Your task to perform on an android device: Clear all items from cart on amazon.com. Add corsair k70 to the cart on amazon.com, then select checkout. Image 0: 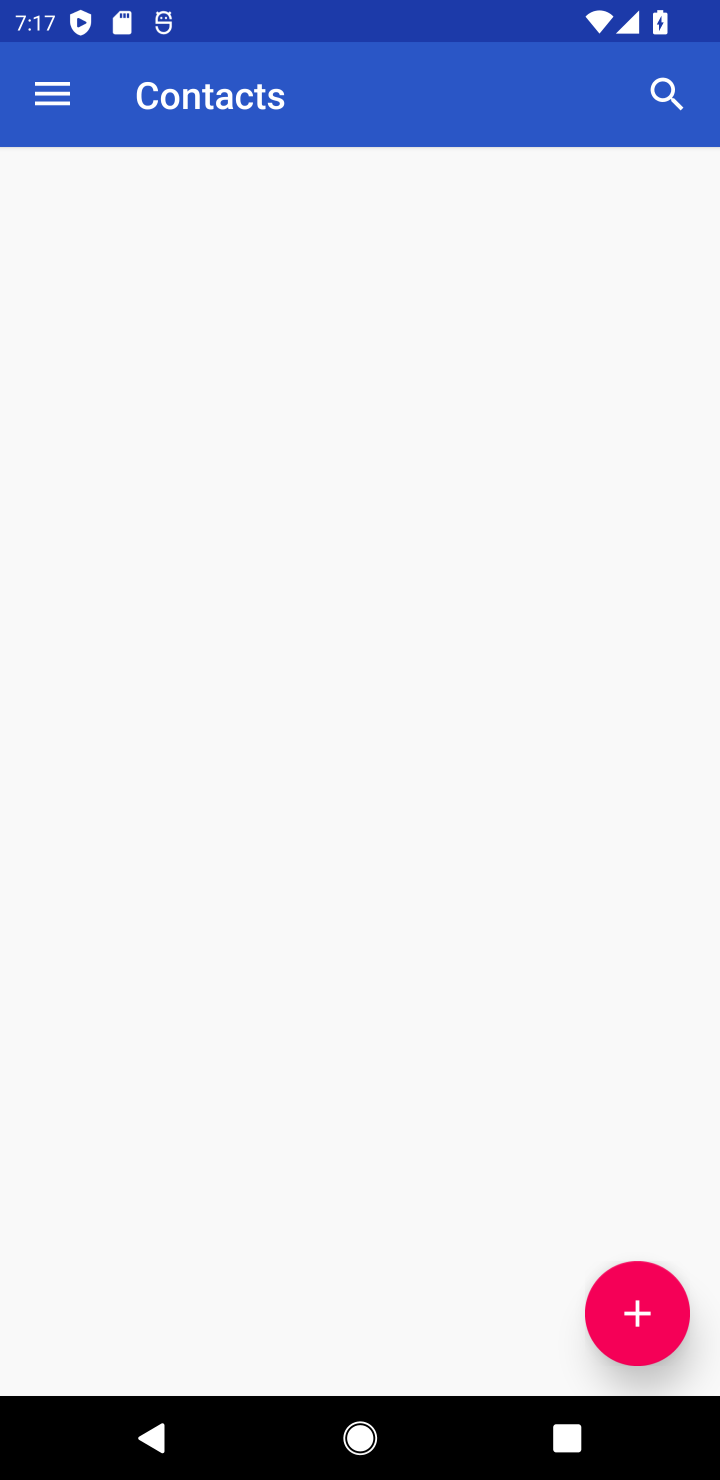
Step 0: press home button
Your task to perform on an android device: Clear all items from cart on amazon.com. Add corsair k70 to the cart on amazon.com, then select checkout. Image 1: 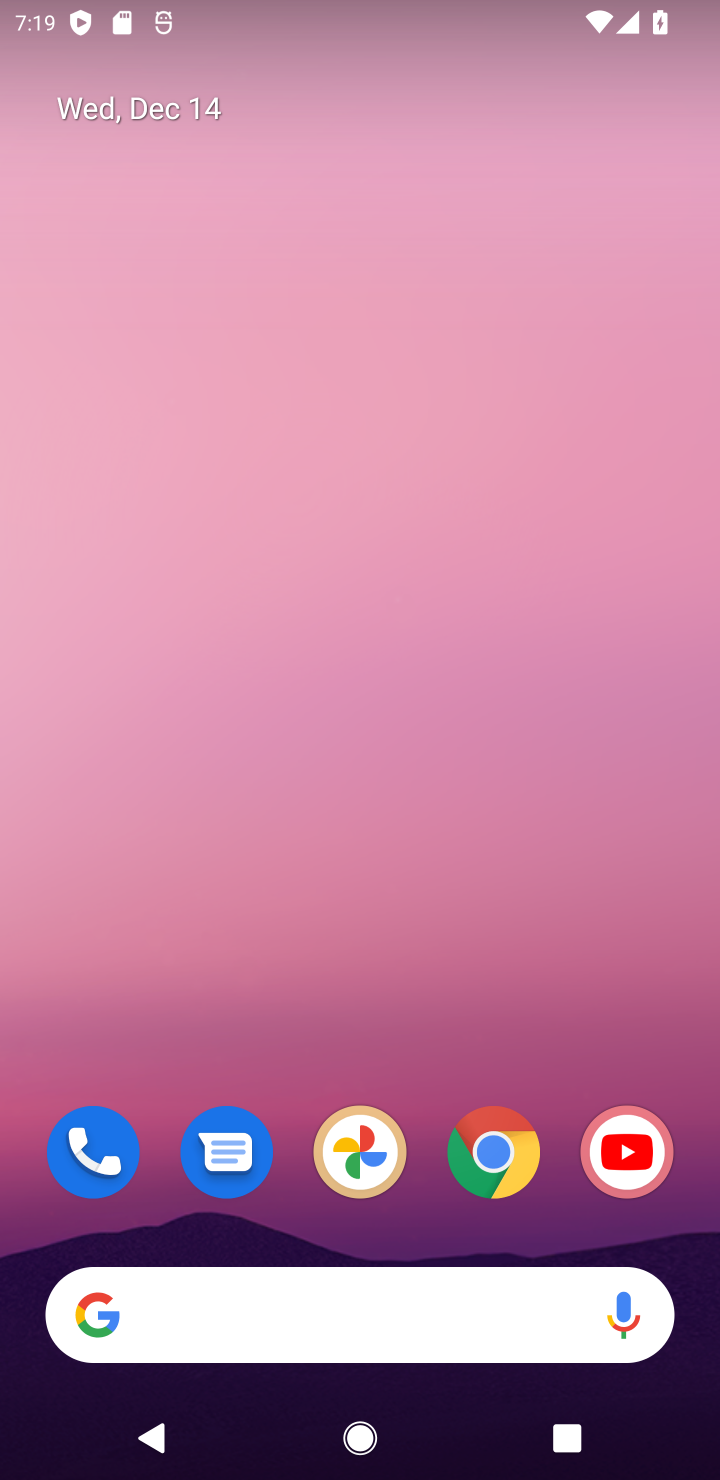
Step 1: click (494, 1171)
Your task to perform on an android device: Clear all items from cart on amazon.com. Add corsair k70 to the cart on amazon.com, then select checkout. Image 2: 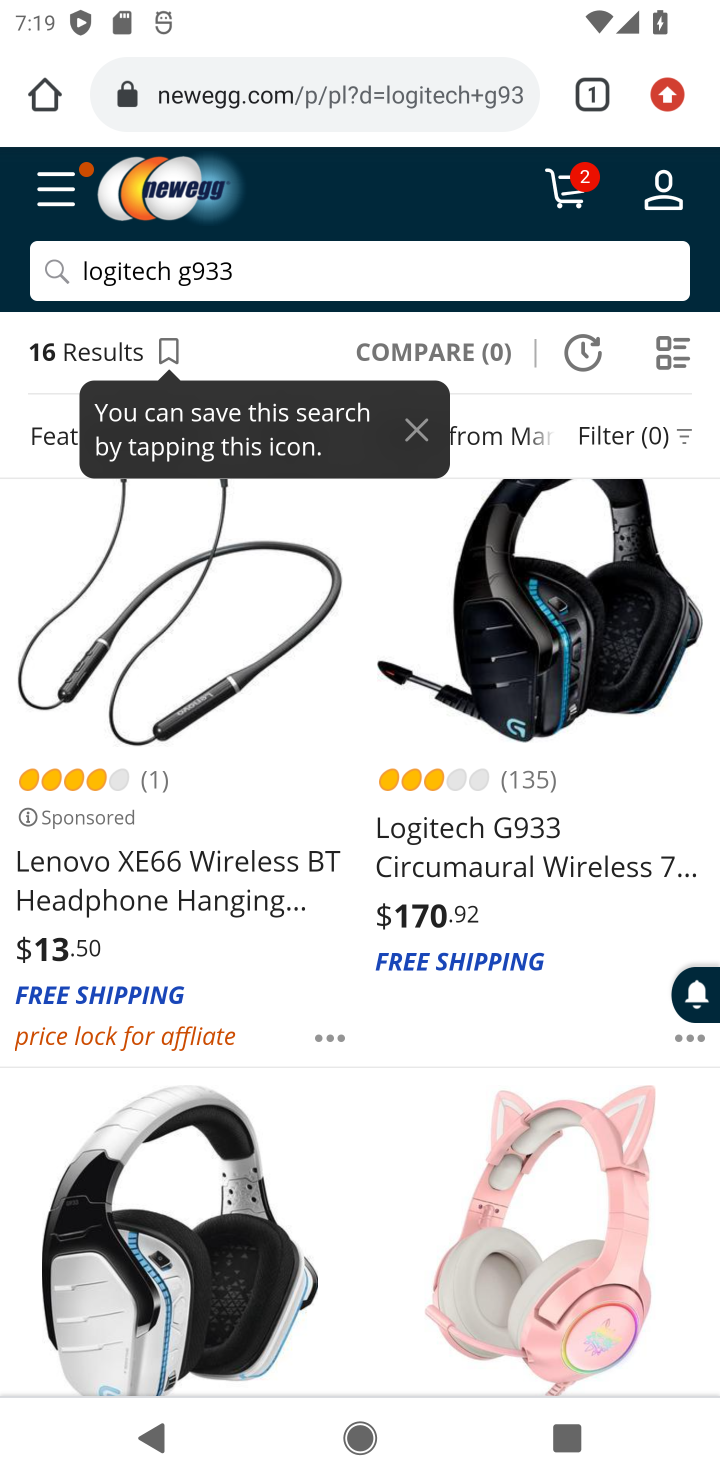
Step 2: click (291, 104)
Your task to perform on an android device: Clear all items from cart on amazon.com. Add corsair k70 to the cart on amazon.com, then select checkout. Image 3: 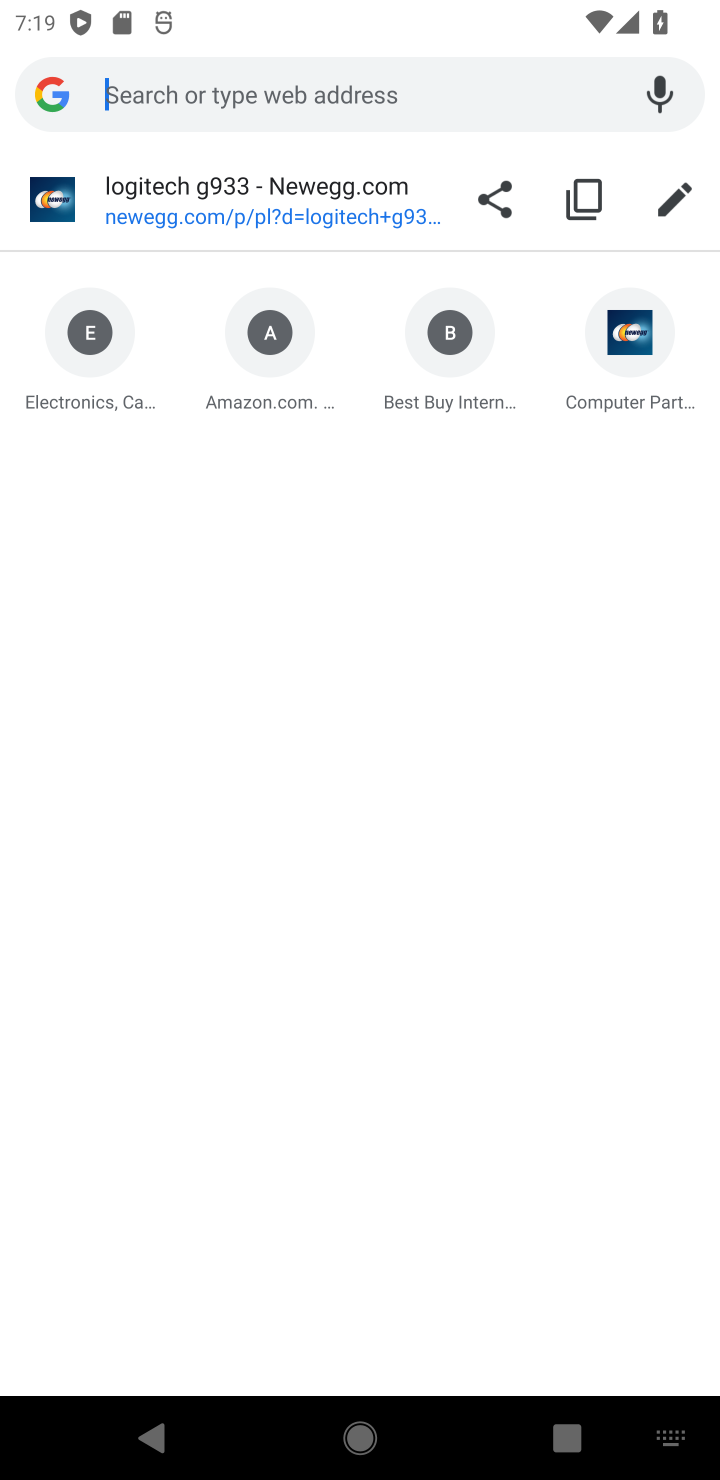
Step 3: click (280, 343)
Your task to perform on an android device: Clear all items from cart on amazon.com. Add corsair k70 to the cart on amazon.com, then select checkout. Image 4: 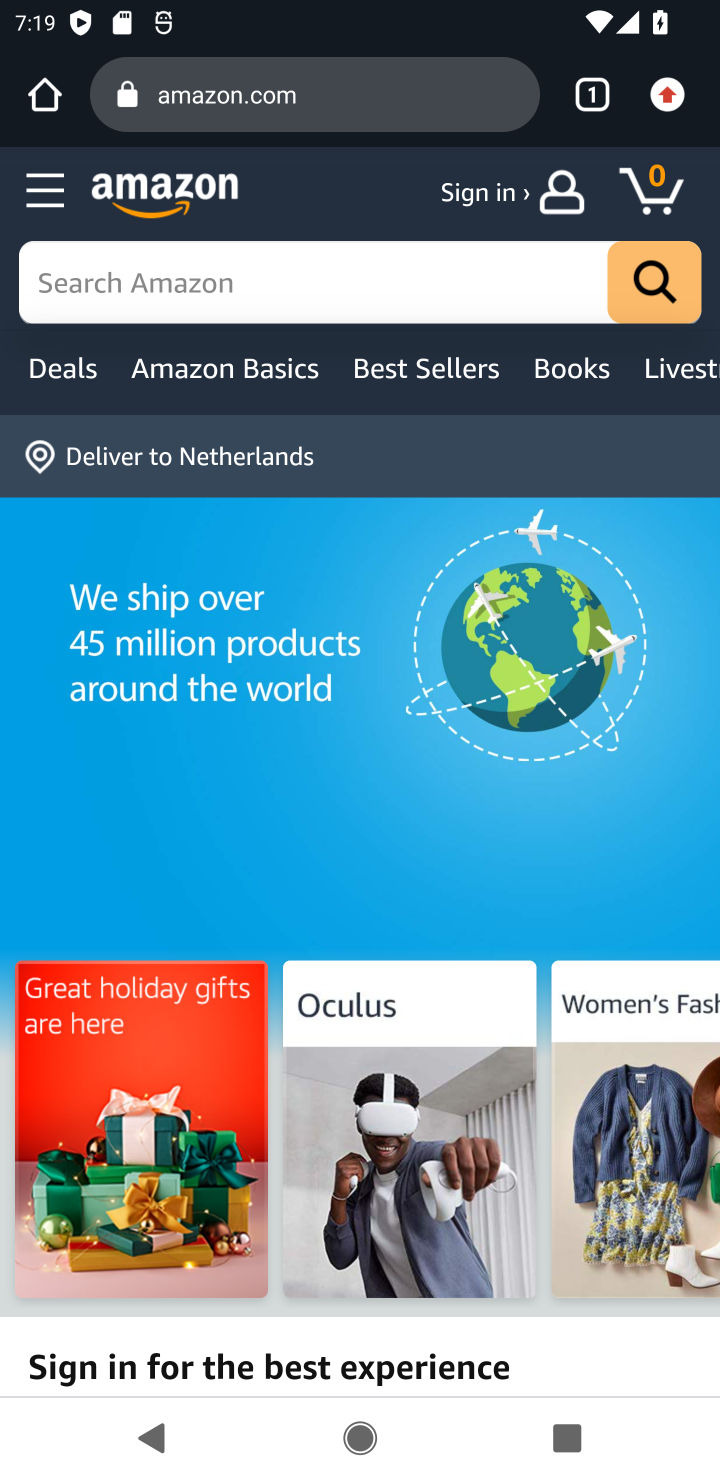
Step 4: click (658, 198)
Your task to perform on an android device: Clear all items from cart on amazon.com. Add corsair k70 to the cart on amazon.com, then select checkout. Image 5: 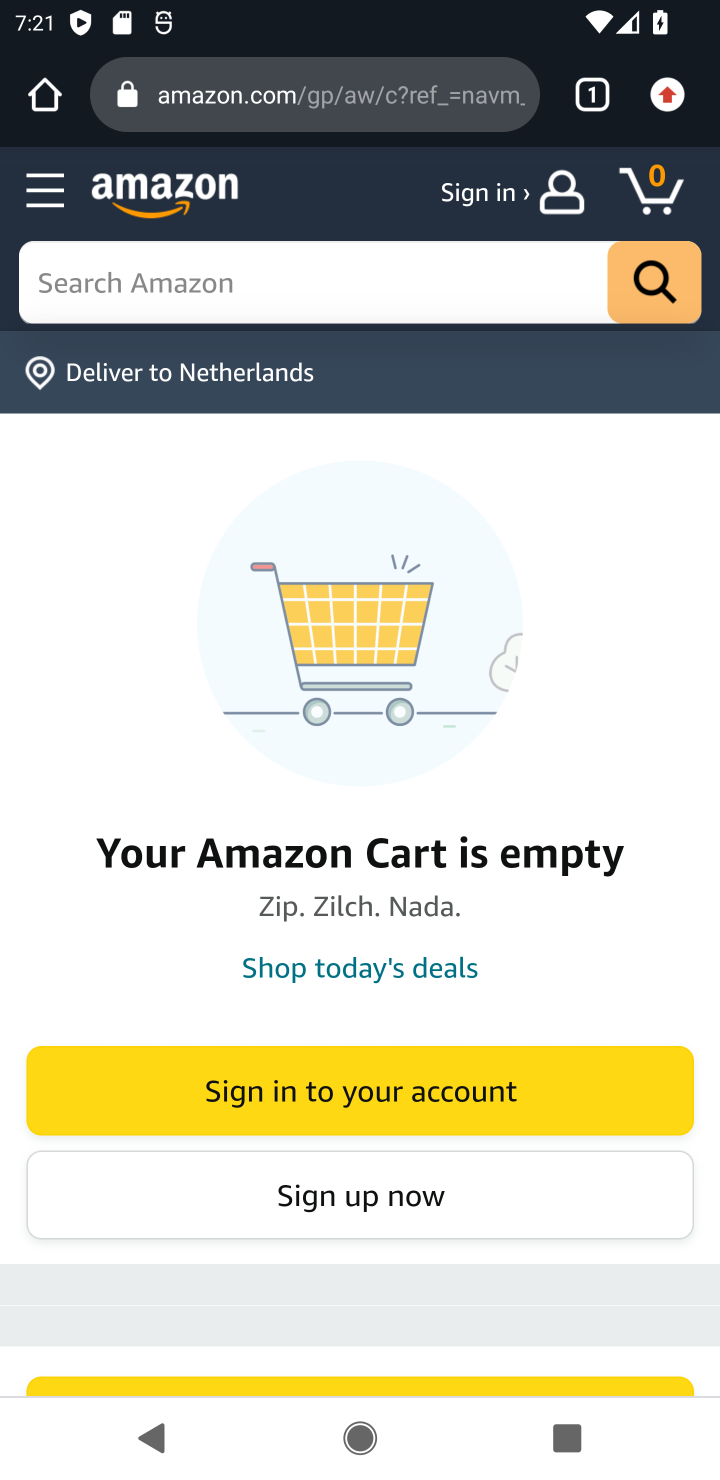
Step 5: click (224, 288)
Your task to perform on an android device: Clear all items from cart on amazon.com. Add corsair k70 to the cart on amazon.com, then select checkout. Image 6: 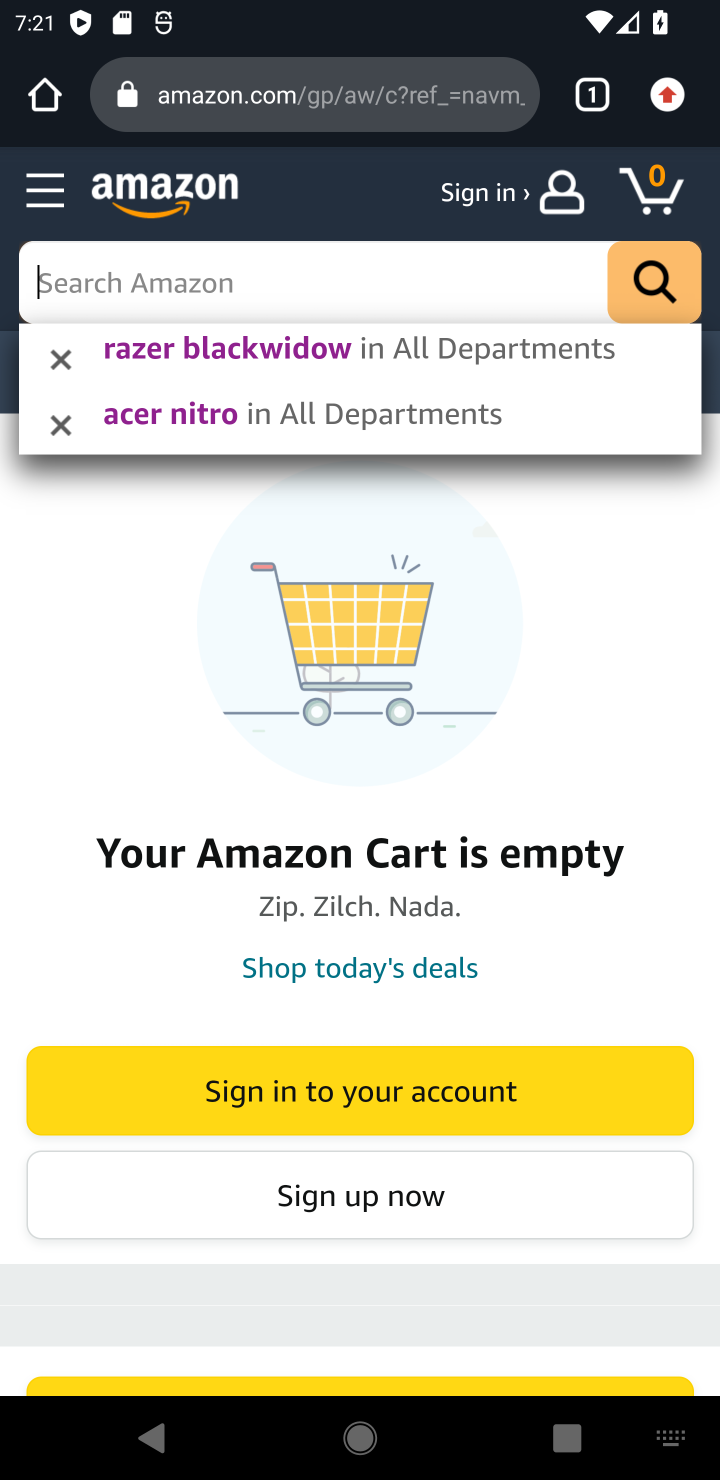
Step 6: type "corsair k70"
Your task to perform on an android device: Clear all items from cart on amazon.com. Add corsair k70 to the cart on amazon.com, then select checkout. Image 7: 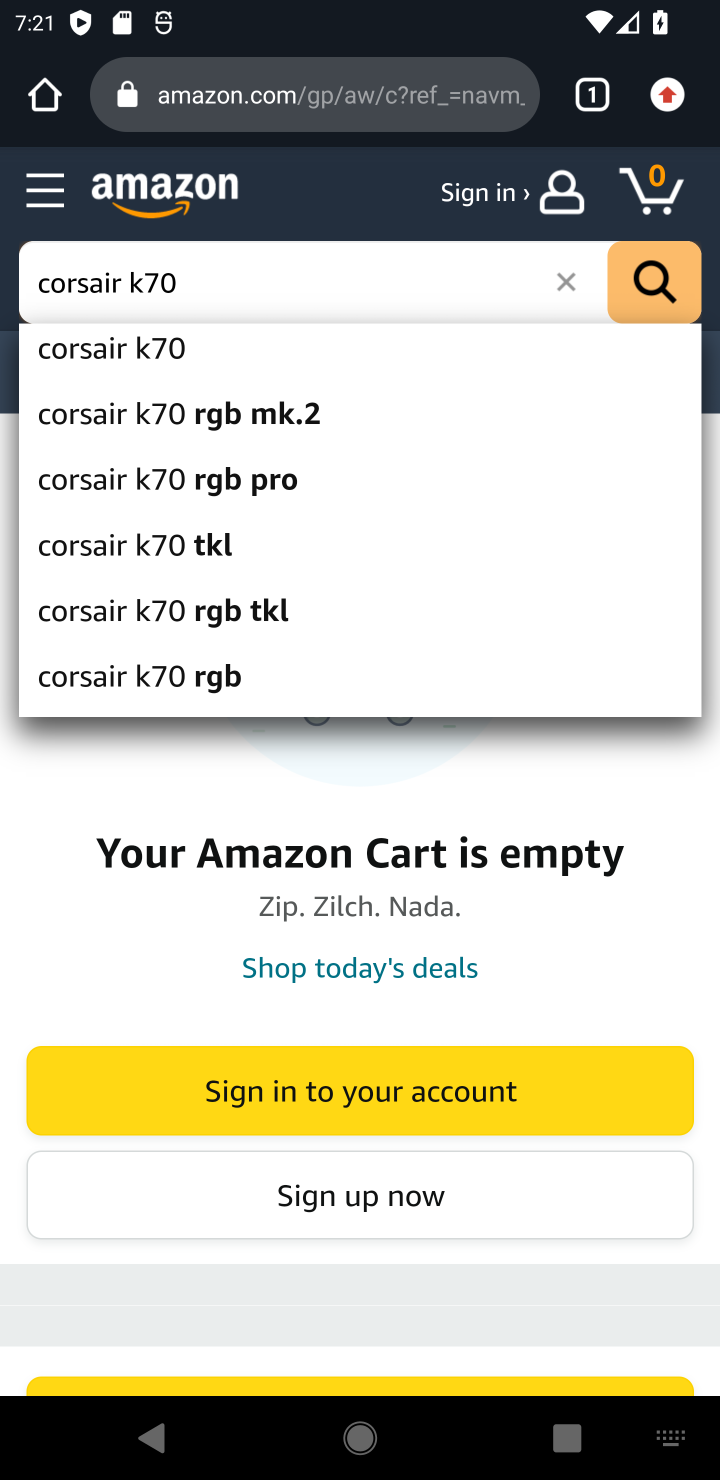
Step 7: click (132, 348)
Your task to perform on an android device: Clear all items from cart on amazon.com. Add corsair k70 to the cart on amazon.com, then select checkout. Image 8: 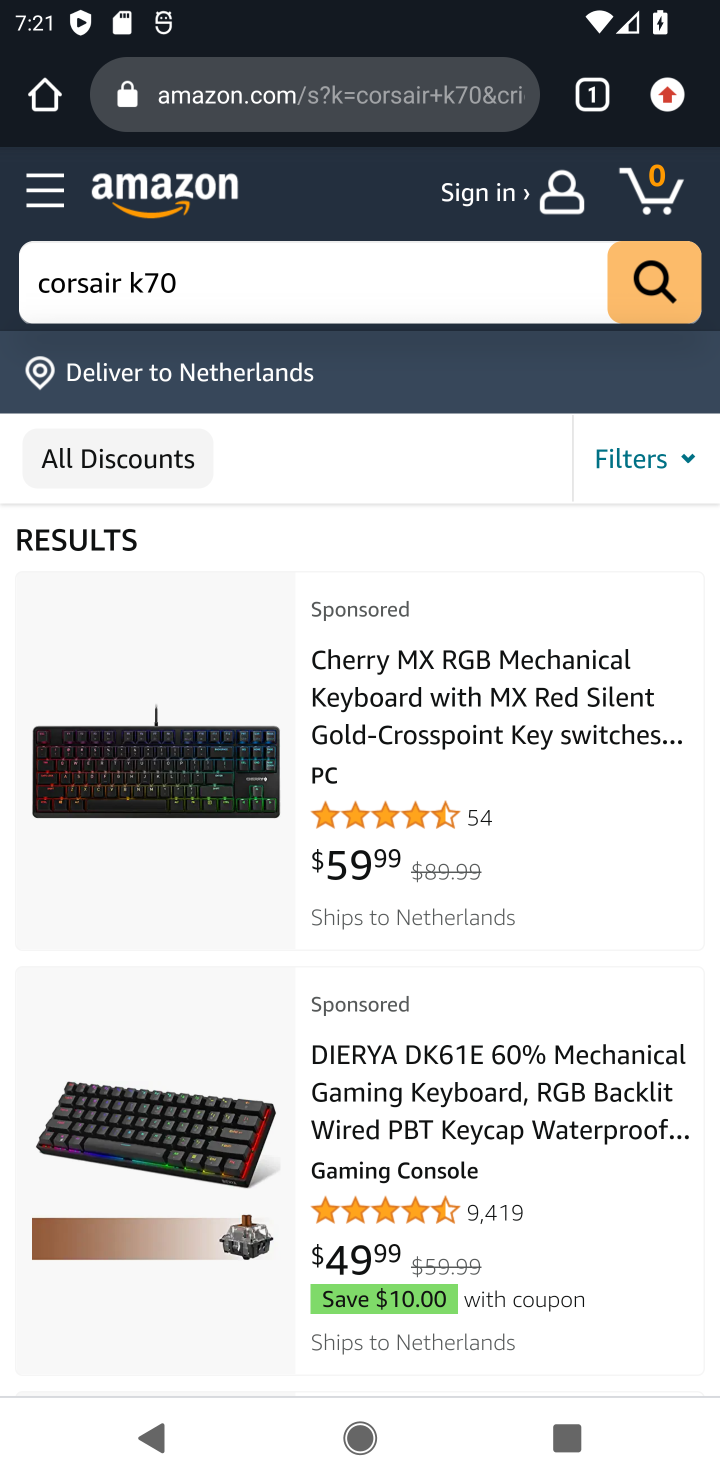
Step 8: drag from (431, 1108) to (466, 656)
Your task to perform on an android device: Clear all items from cart on amazon.com. Add corsair k70 to the cart on amazon.com, then select checkout. Image 9: 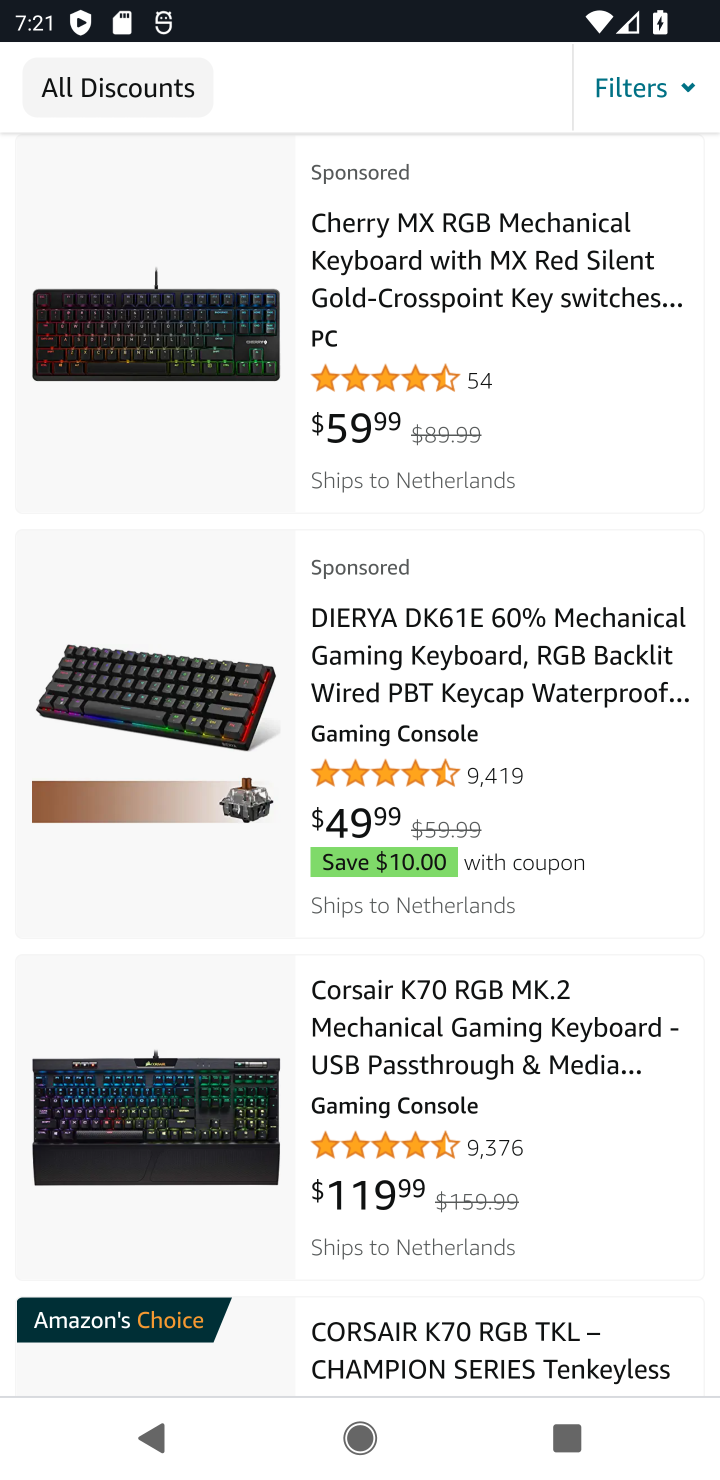
Step 9: click (384, 1070)
Your task to perform on an android device: Clear all items from cart on amazon.com. Add corsair k70 to the cart on amazon.com, then select checkout. Image 10: 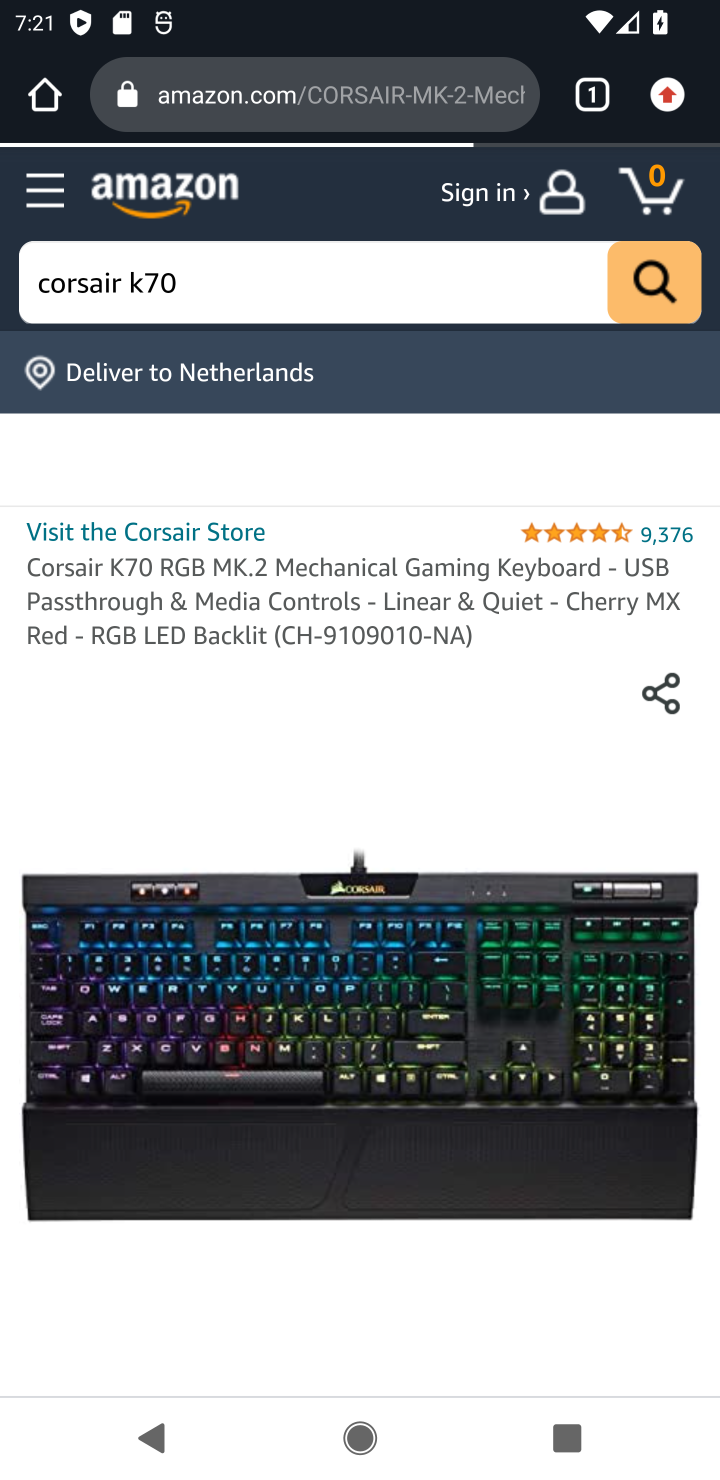
Step 10: drag from (361, 1089) to (343, 489)
Your task to perform on an android device: Clear all items from cart on amazon.com. Add corsair k70 to the cart on amazon.com, then select checkout. Image 11: 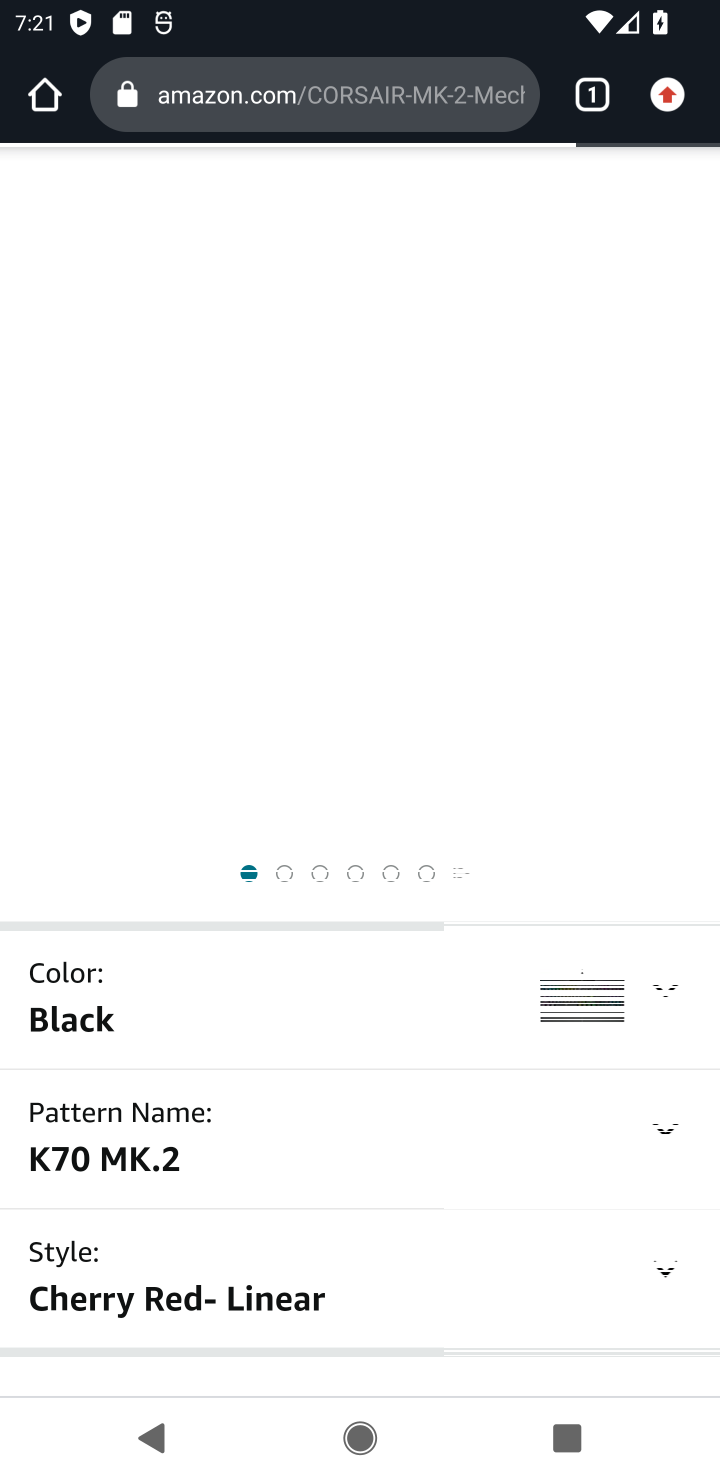
Step 11: drag from (308, 1073) to (343, 550)
Your task to perform on an android device: Clear all items from cart on amazon.com. Add corsair k70 to the cart on amazon.com, then select checkout. Image 12: 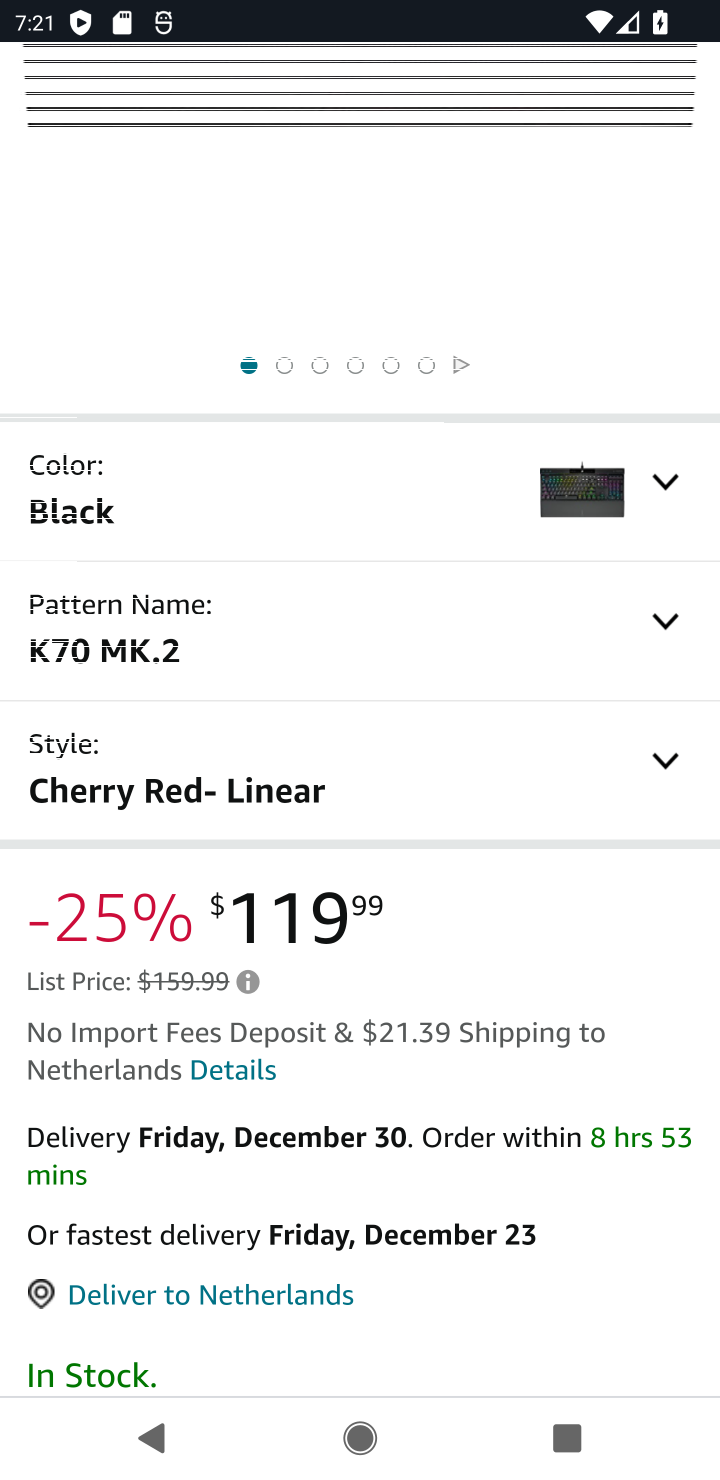
Step 12: drag from (290, 1038) to (283, 502)
Your task to perform on an android device: Clear all items from cart on amazon.com. Add corsair k70 to the cart on amazon.com, then select checkout. Image 13: 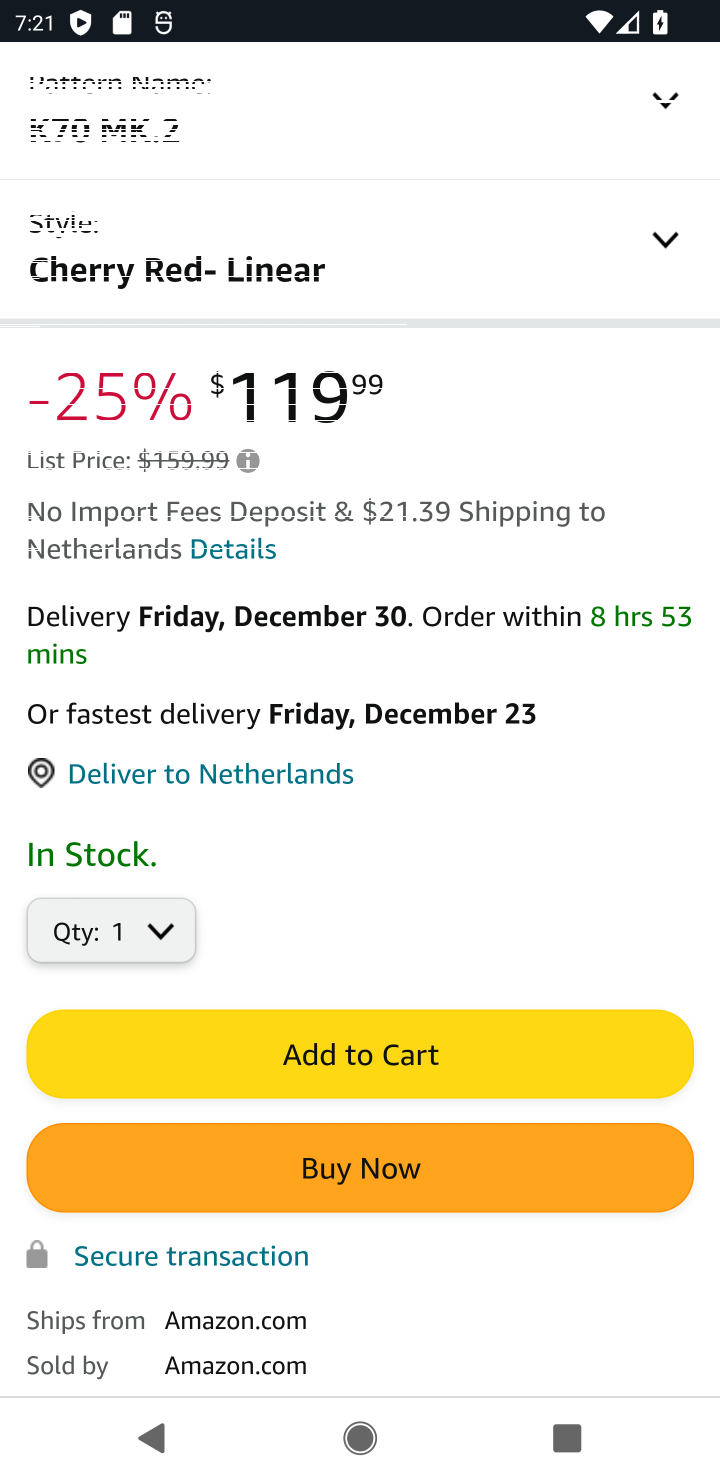
Step 13: click (276, 1053)
Your task to perform on an android device: Clear all items from cart on amazon.com. Add corsair k70 to the cart on amazon.com, then select checkout. Image 14: 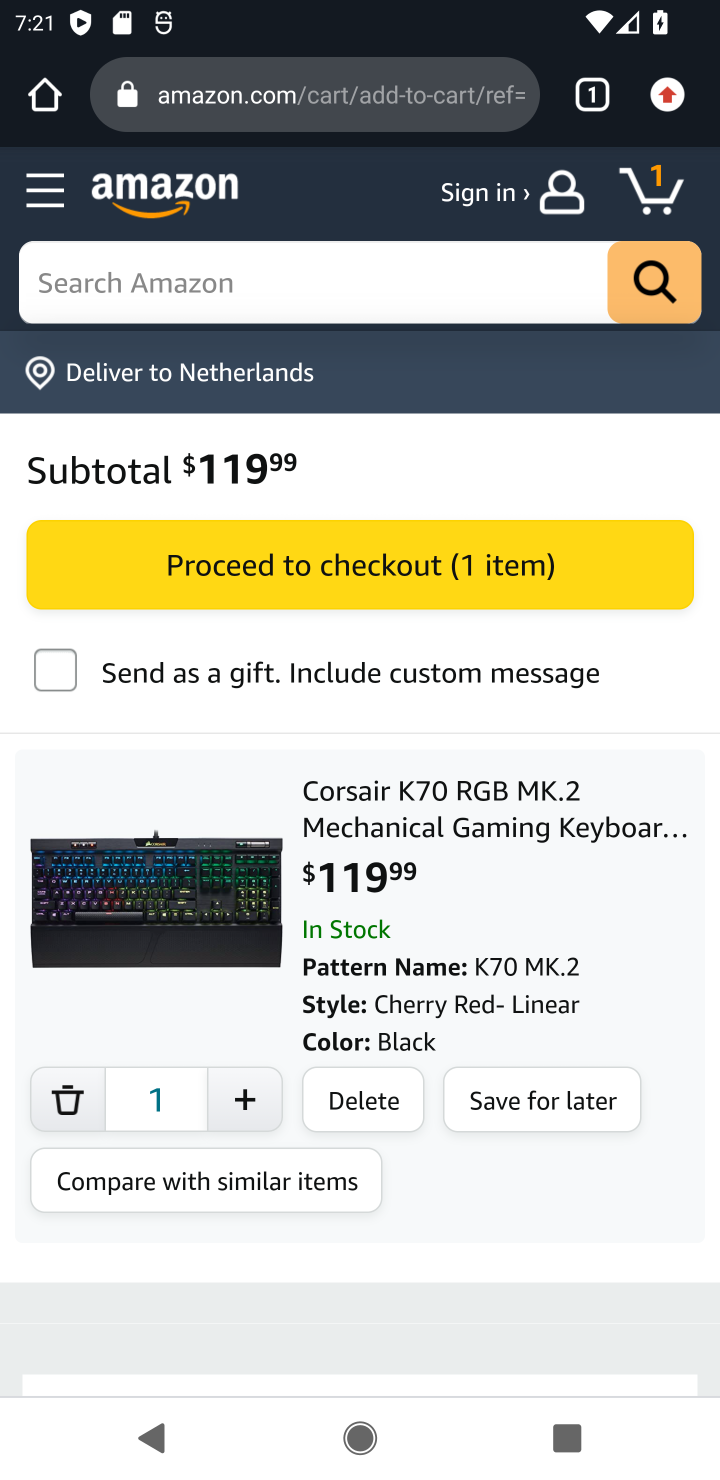
Step 14: click (274, 564)
Your task to perform on an android device: Clear all items from cart on amazon.com. Add corsair k70 to the cart on amazon.com, then select checkout. Image 15: 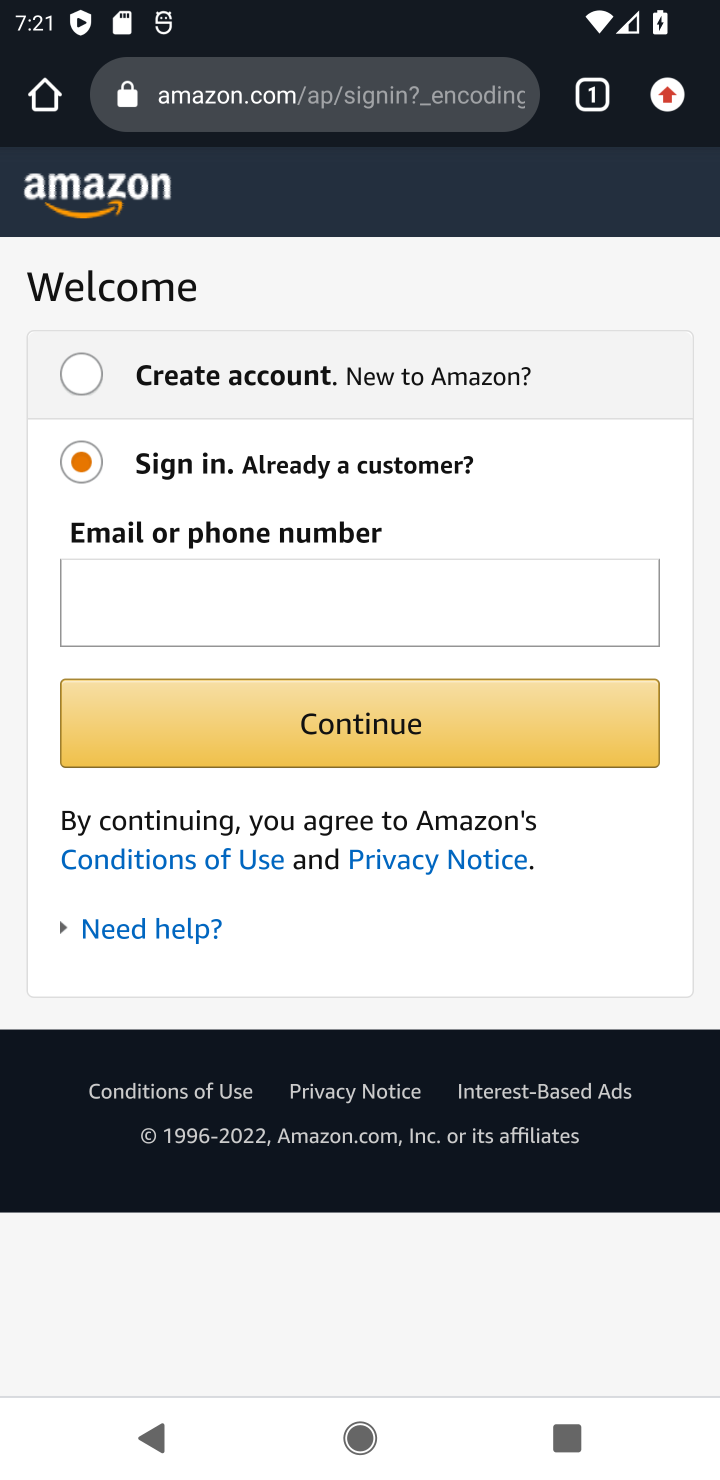
Step 15: task complete